Your task to perform on an android device: Toggle the flashlight Image 0: 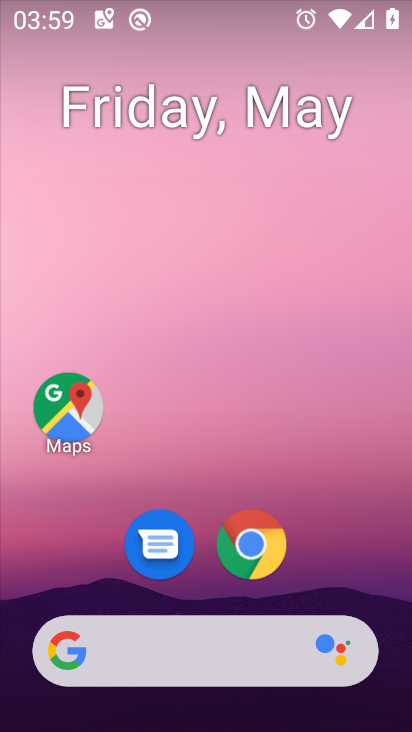
Step 0: drag from (271, 696) to (61, 0)
Your task to perform on an android device: Toggle the flashlight Image 1: 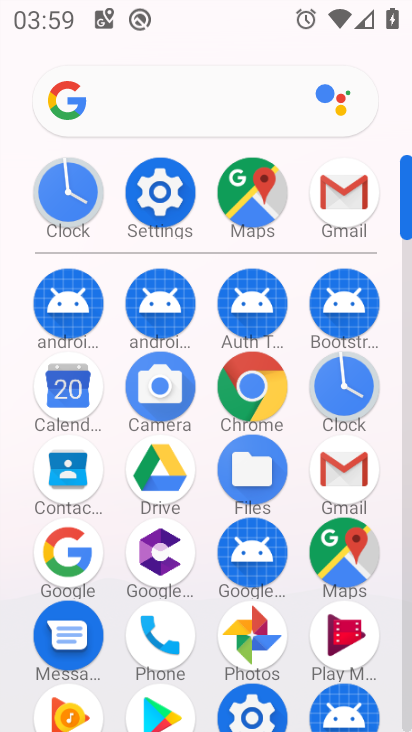
Step 1: task complete